Your task to perform on an android device: toggle priority inbox in the gmail app Image 0: 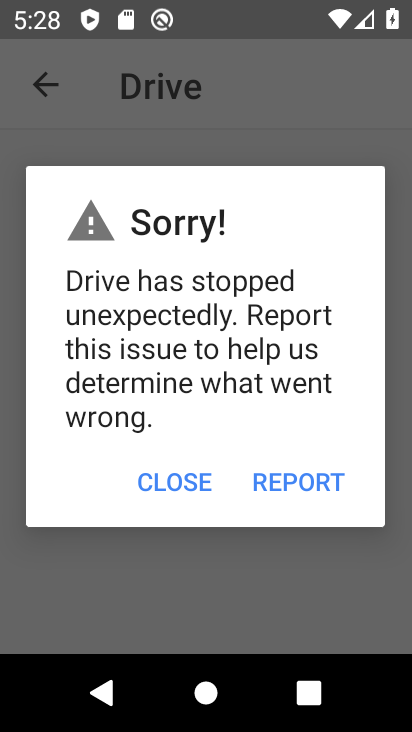
Step 0: press back button
Your task to perform on an android device: toggle priority inbox in the gmail app Image 1: 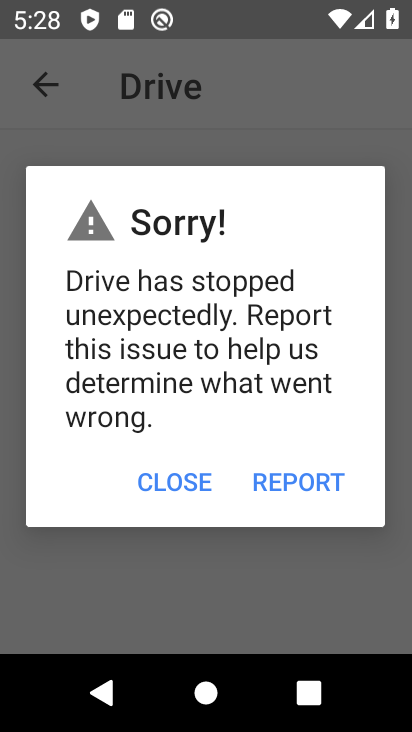
Step 1: press home button
Your task to perform on an android device: toggle priority inbox in the gmail app Image 2: 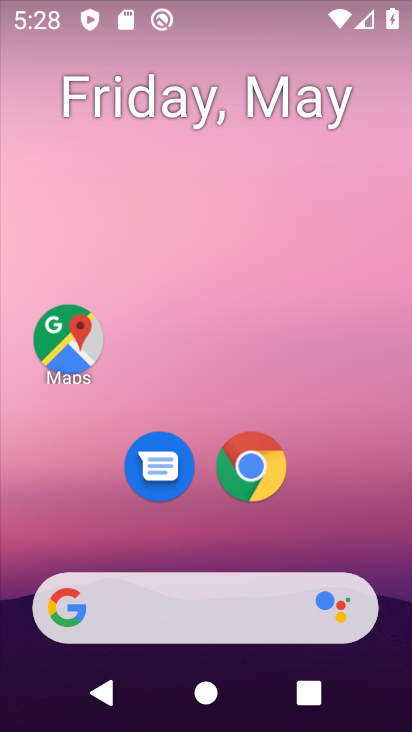
Step 2: drag from (364, 498) to (235, 35)
Your task to perform on an android device: toggle priority inbox in the gmail app Image 3: 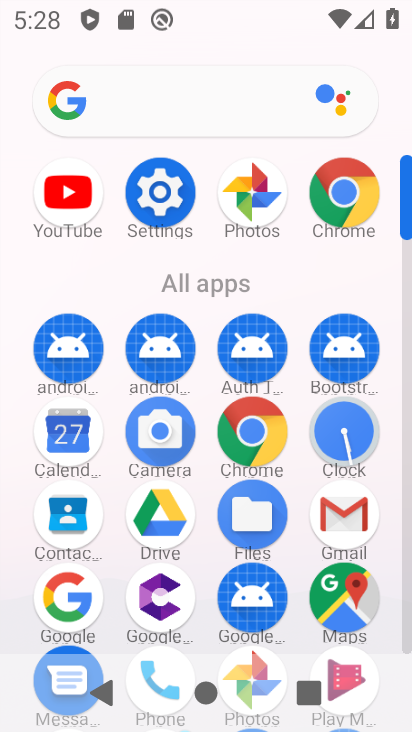
Step 3: drag from (7, 574) to (17, 242)
Your task to perform on an android device: toggle priority inbox in the gmail app Image 4: 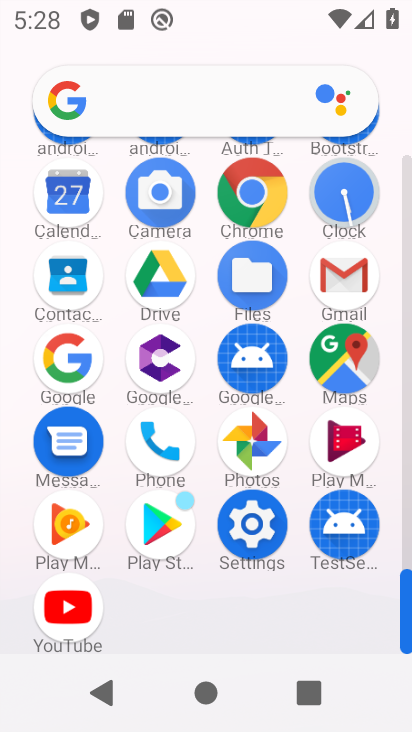
Step 4: click (344, 271)
Your task to perform on an android device: toggle priority inbox in the gmail app Image 5: 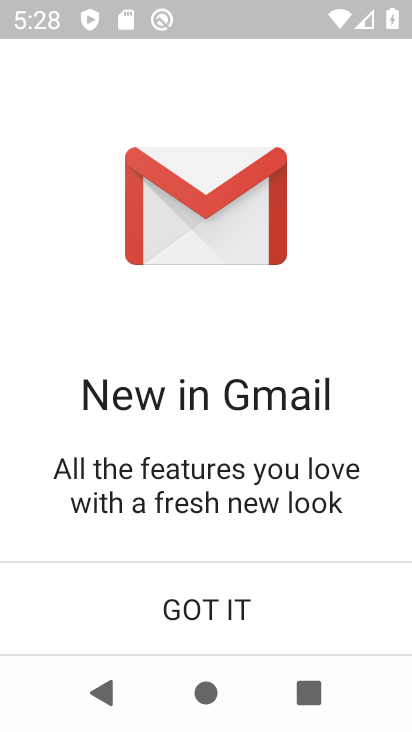
Step 5: click (222, 602)
Your task to perform on an android device: toggle priority inbox in the gmail app Image 6: 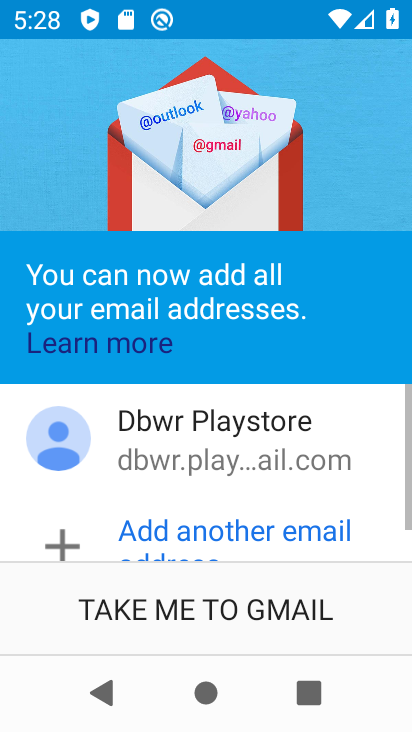
Step 6: click (219, 631)
Your task to perform on an android device: toggle priority inbox in the gmail app Image 7: 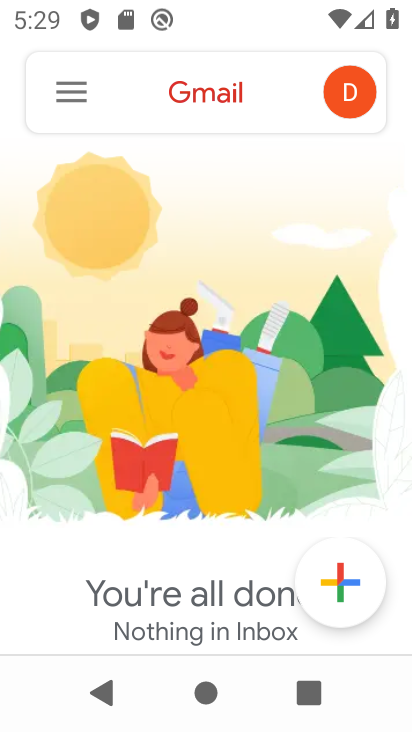
Step 7: click (80, 87)
Your task to perform on an android device: toggle priority inbox in the gmail app Image 8: 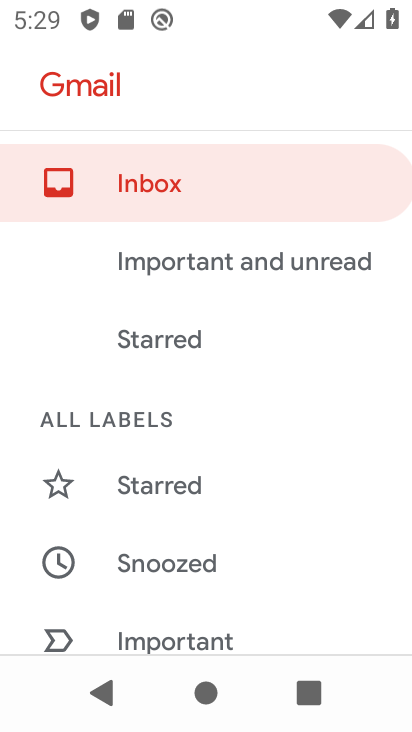
Step 8: drag from (244, 577) to (237, 189)
Your task to perform on an android device: toggle priority inbox in the gmail app Image 9: 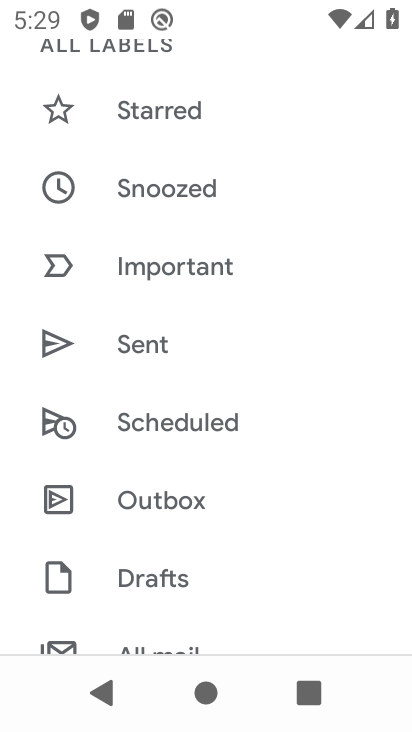
Step 9: drag from (253, 579) to (243, 140)
Your task to perform on an android device: toggle priority inbox in the gmail app Image 10: 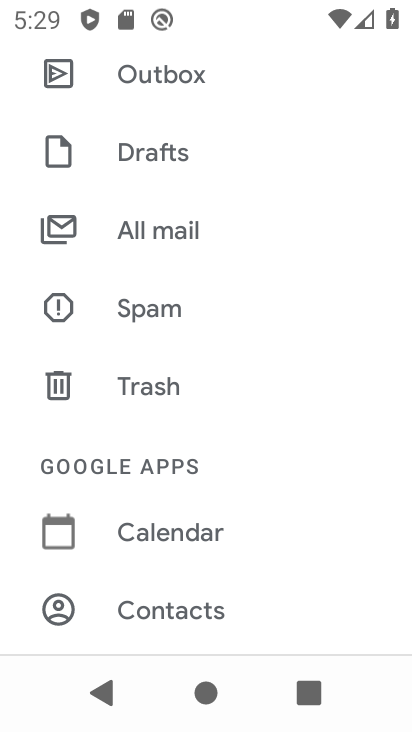
Step 10: drag from (247, 563) to (279, 190)
Your task to perform on an android device: toggle priority inbox in the gmail app Image 11: 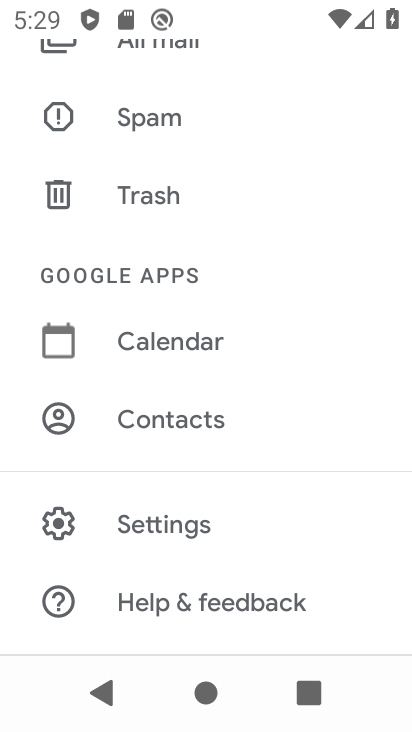
Step 11: click (199, 519)
Your task to perform on an android device: toggle priority inbox in the gmail app Image 12: 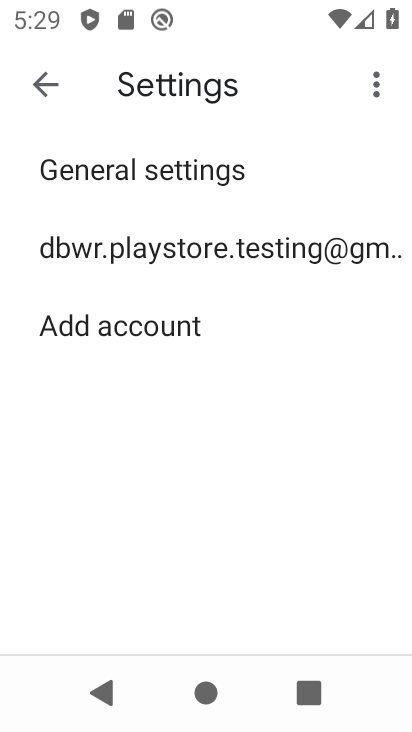
Step 12: click (217, 248)
Your task to perform on an android device: toggle priority inbox in the gmail app Image 13: 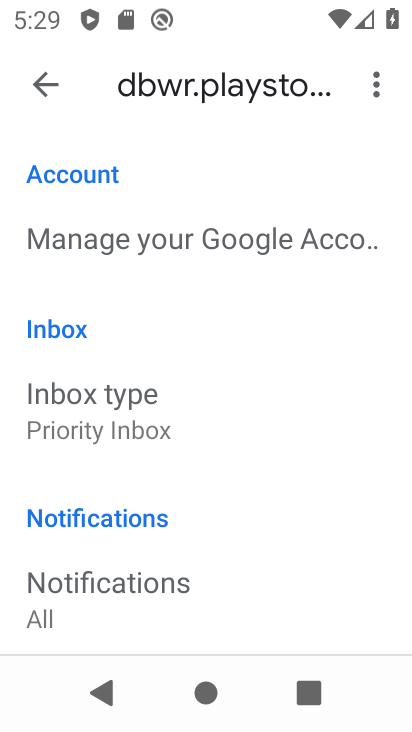
Step 13: task complete